Your task to perform on an android device: add a contact Image 0: 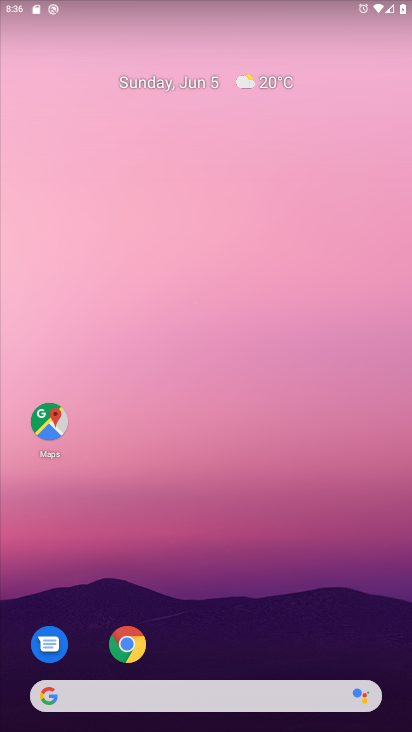
Step 0: drag from (205, 574) to (244, 137)
Your task to perform on an android device: add a contact Image 1: 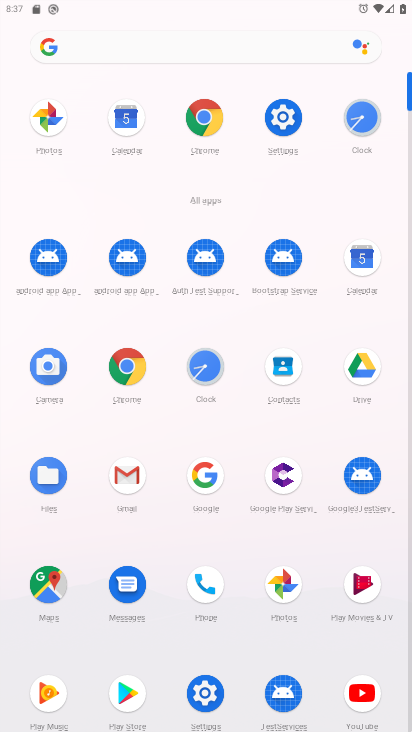
Step 1: click (279, 367)
Your task to perform on an android device: add a contact Image 2: 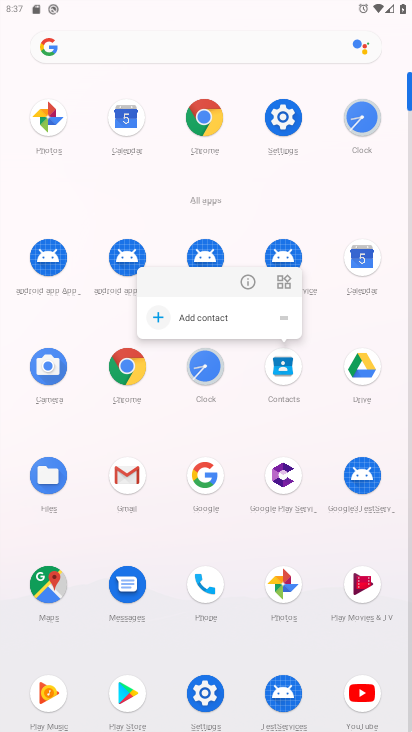
Step 2: task complete